Your task to perform on an android device: Do I have any events tomorrow? Image 0: 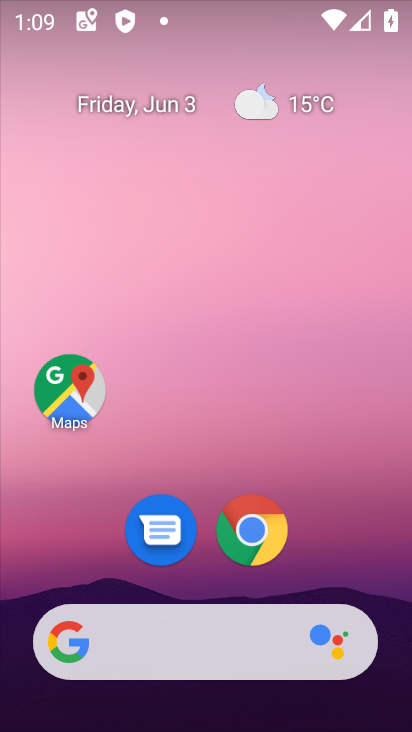
Step 0: press home button
Your task to perform on an android device: Do I have any events tomorrow? Image 1: 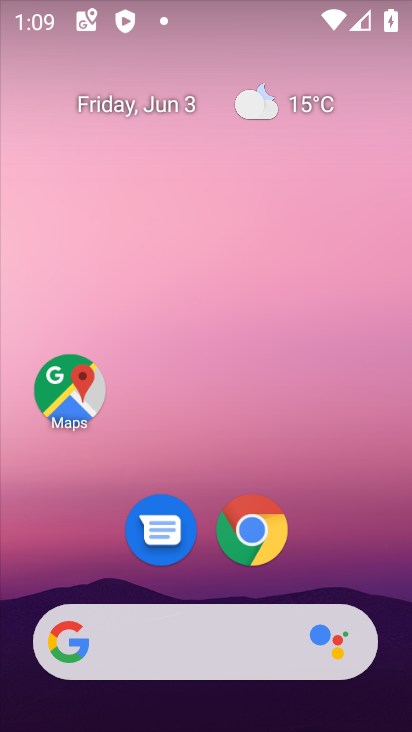
Step 1: drag from (343, 557) to (349, 181)
Your task to perform on an android device: Do I have any events tomorrow? Image 2: 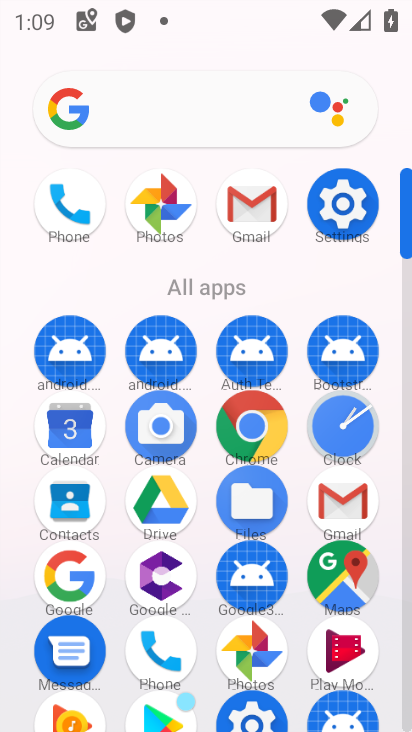
Step 2: click (72, 428)
Your task to perform on an android device: Do I have any events tomorrow? Image 3: 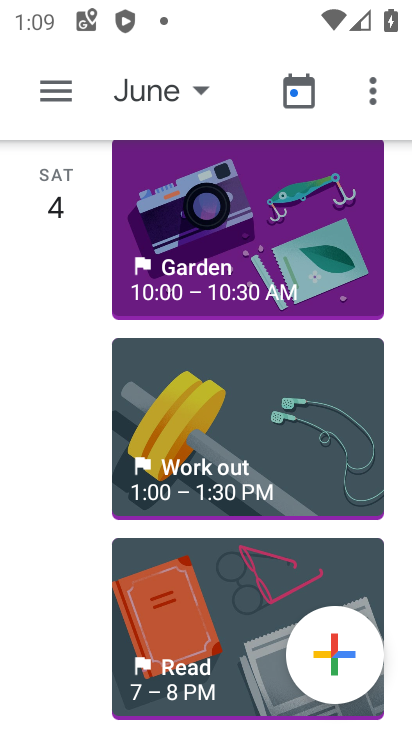
Step 3: click (62, 91)
Your task to perform on an android device: Do I have any events tomorrow? Image 4: 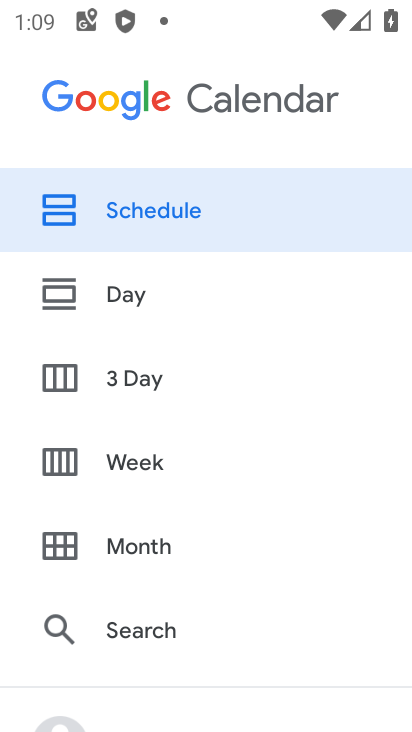
Step 4: drag from (332, 679) to (370, 702)
Your task to perform on an android device: Do I have any events tomorrow? Image 5: 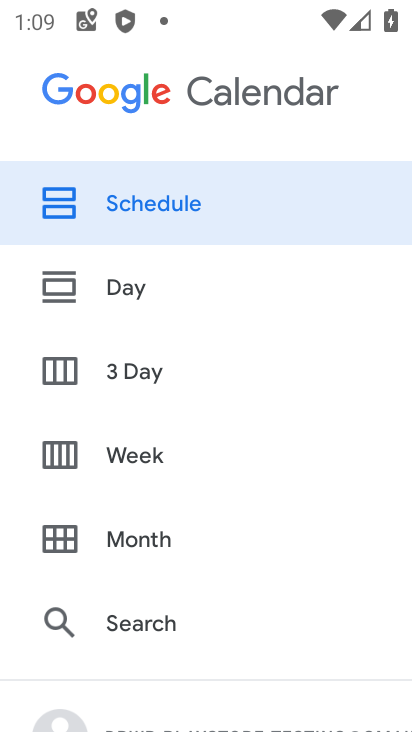
Step 5: click (183, 219)
Your task to perform on an android device: Do I have any events tomorrow? Image 6: 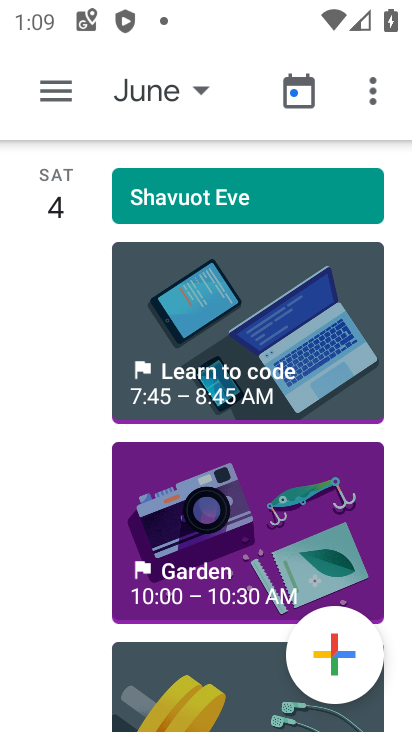
Step 6: task complete